Your task to perform on an android device: turn off improve location accuracy Image 0: 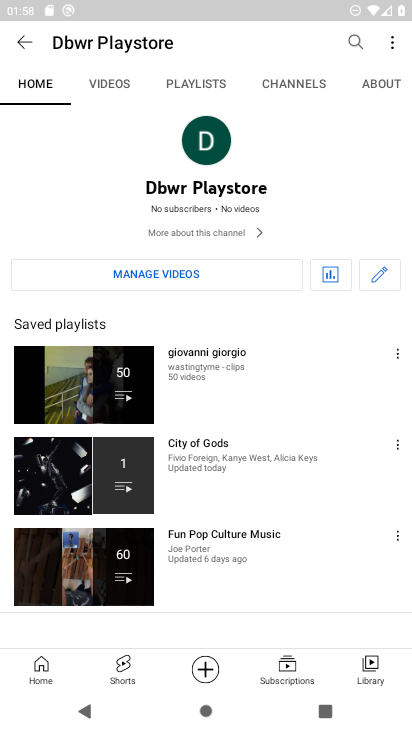
Step 0: press home button
Your task to perform on an android device: turn off improve location accuracy Image 1: 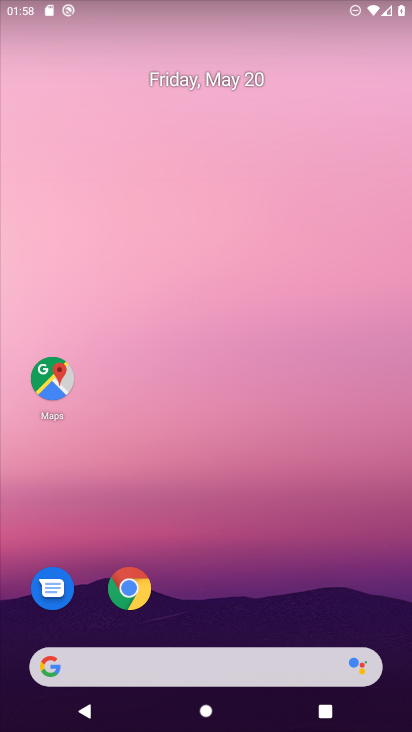
Step 1: drag from (388, 618) to (317, 10)
Your task to perform on an android device: turn off improve location accuracy Image 2: 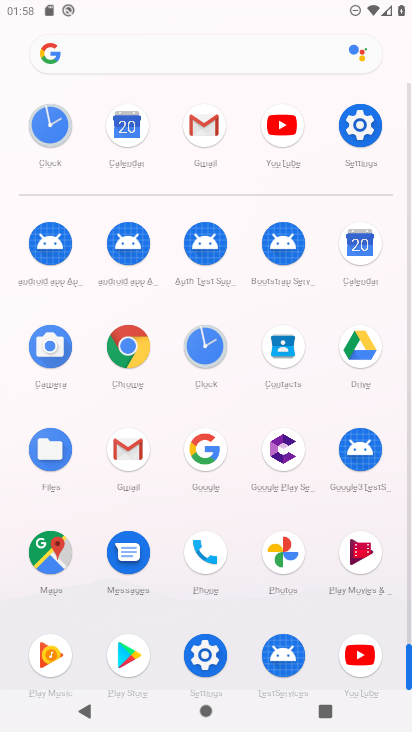
Step 2: click (205, 655)
Your task to perform on an android device: turn off improve location accuracy Image 3: 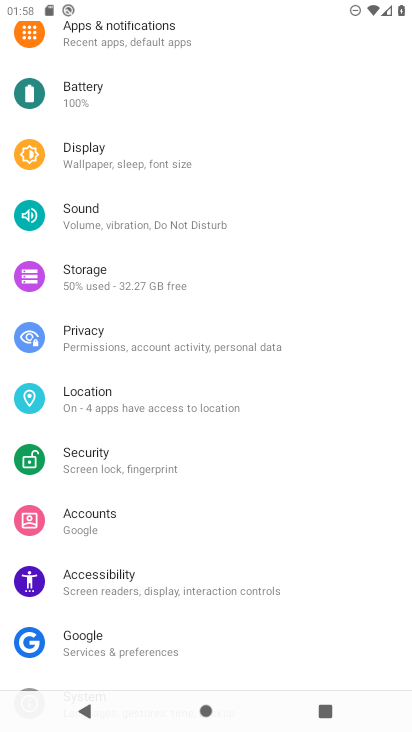
Step 3: click (90, 381)
Your task to perform on an android device: turn off improve location accuracy Image 4: 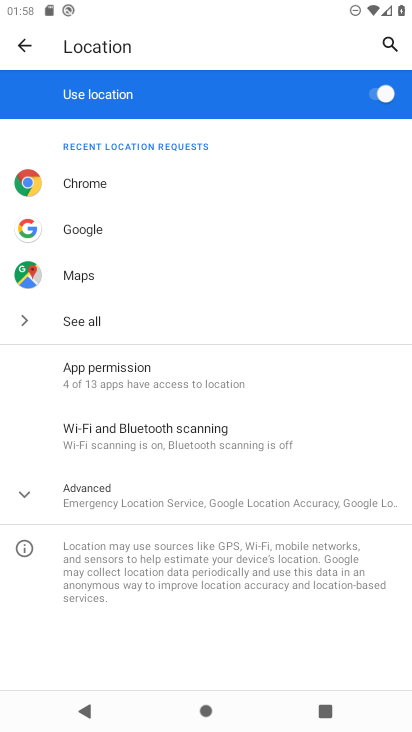
Step 4: click (20, 494)
Your task to perform on an android device: turn off improve location accuracy Image 5: 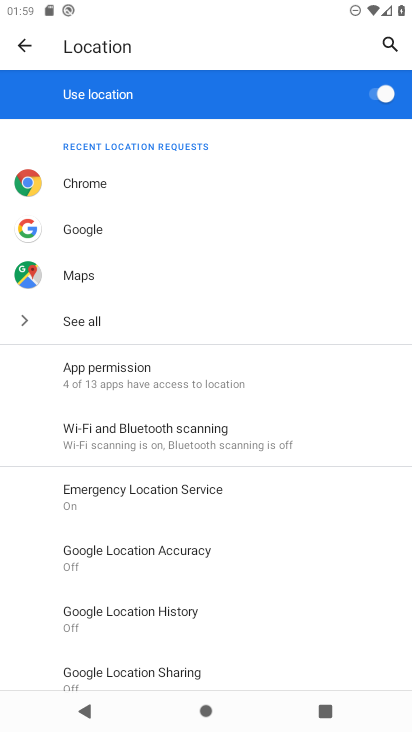
Step 5: click (103, 547)
Your task to perform on an android device: turn off improve location accuracy Image 6: 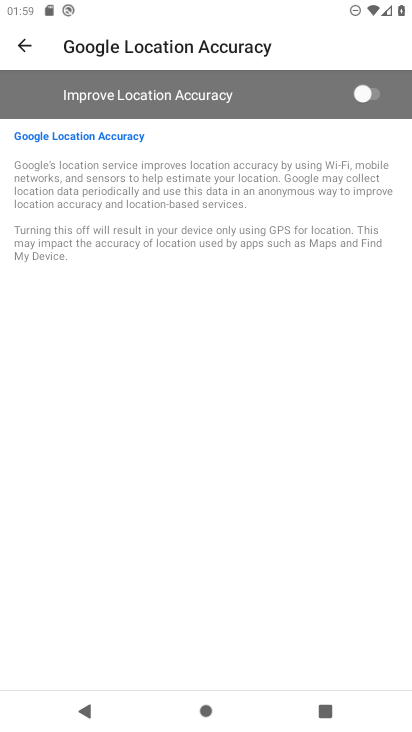
Step 6: task complete